Your task to perform on an android device: Go to Google maps Image 0: 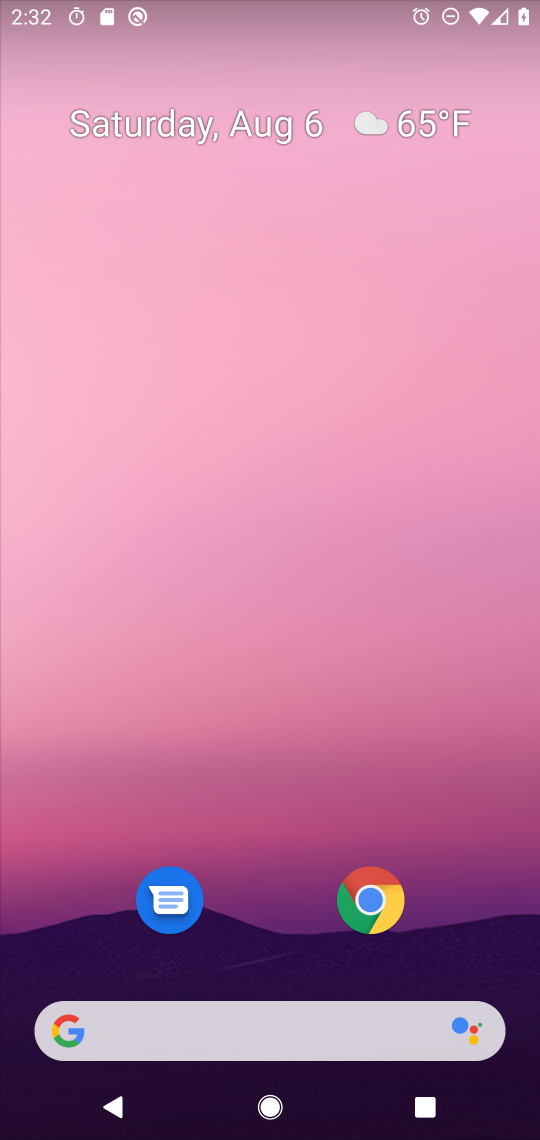
Step 0: drag from (271, 822) to (271, 230)
Your task to perform on an android device: Go to Google maps Image 1: 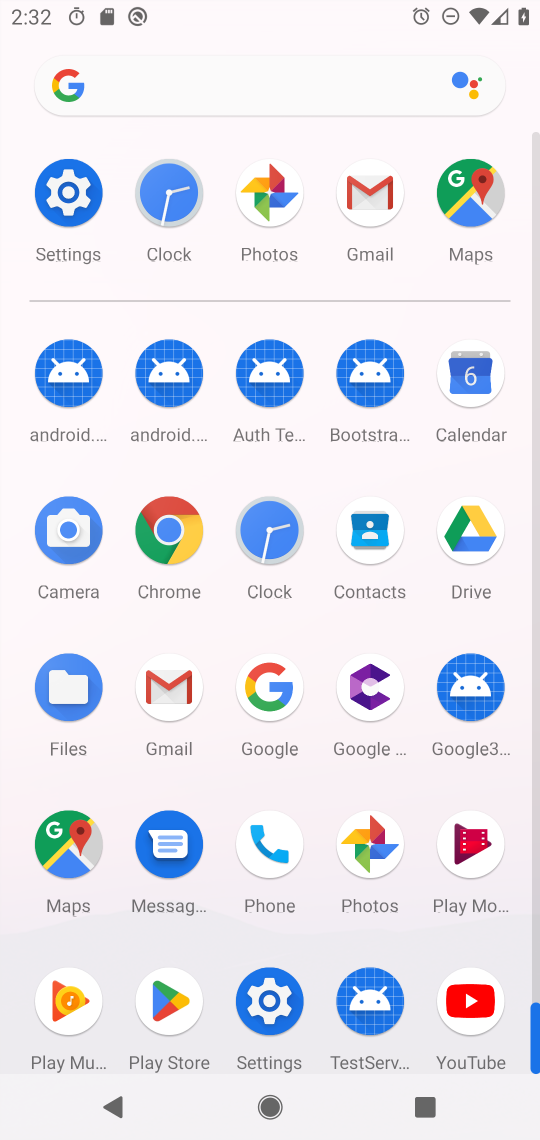
Step 1: click (469, 202)
Your task to perform on an android device: Go to Google maps Image 2: 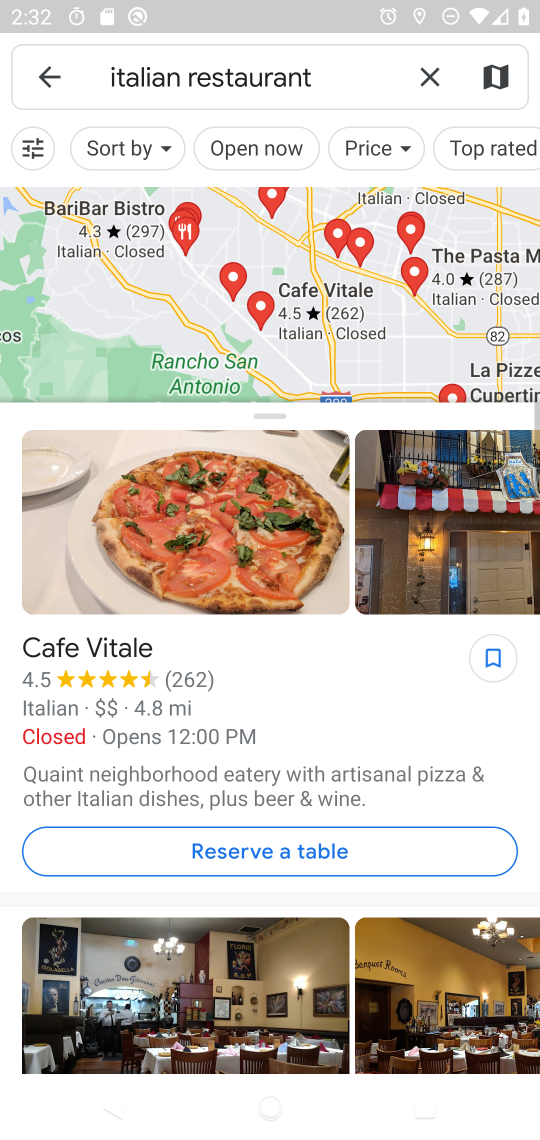
Step 2: task complete